Your task to perform on an android device: turn off location history Image 0: 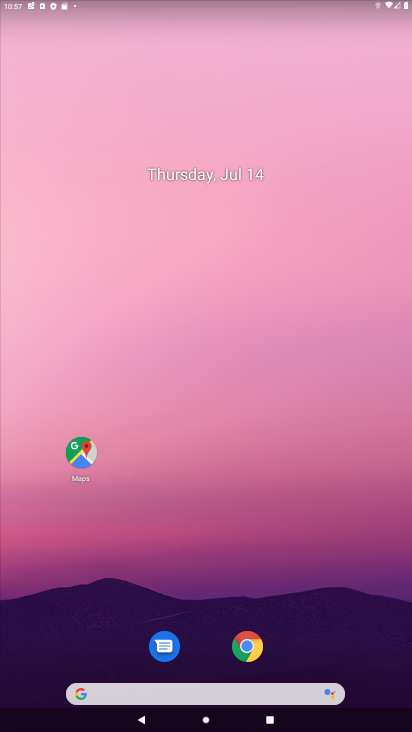
Step 0: drag from (201, 653) to (191, 184)
Your task to perform on an android device: turn off location history Image 1: 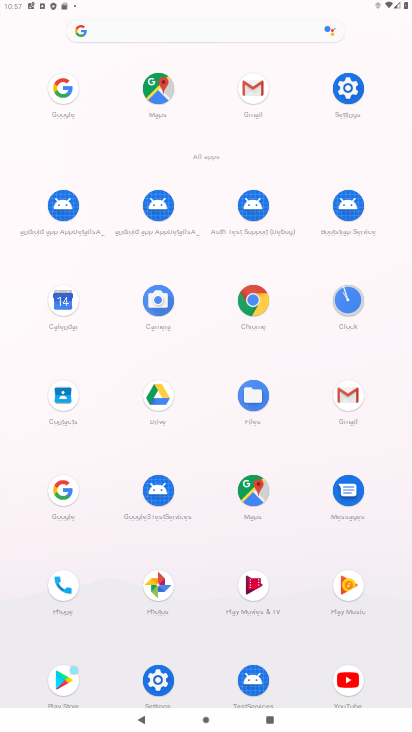
Step 1: click (358, 101)
Your task to perform on an android device: turn off location history Image 2: 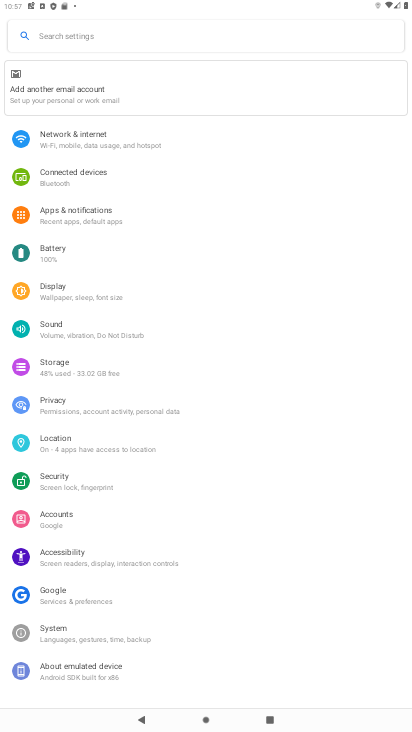
Step 2: click (92, 436)
Your task to perform on an android device: turn off location history Image 3: 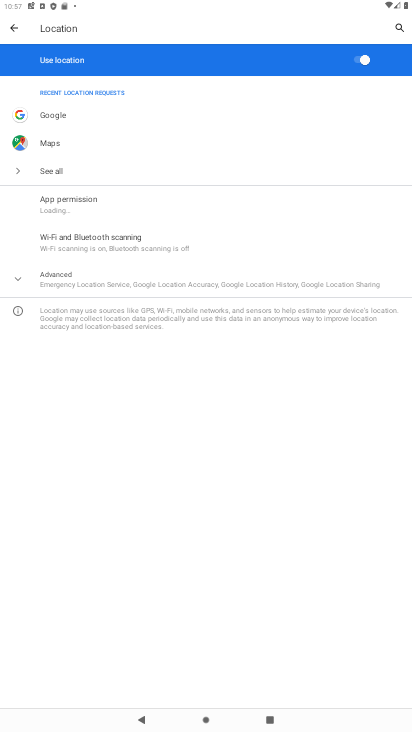
Step 3: click (111, 285)
Your task to perform on an android device: turn off location history Image 4: 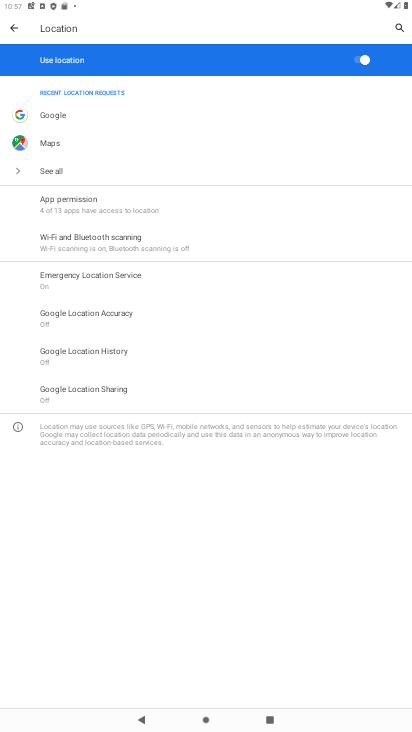
Step 4: click (74, 349)
Your task to perform on an android device: turn off location history Image 5: 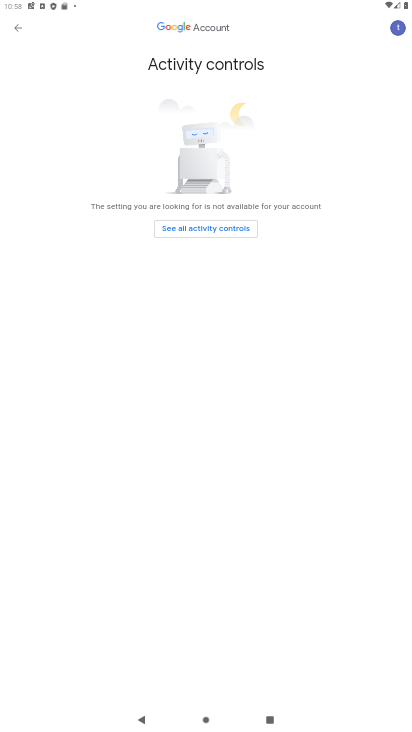
Step 5: task complete